Your task to perform on an android device: Open CNN.com Image 0: 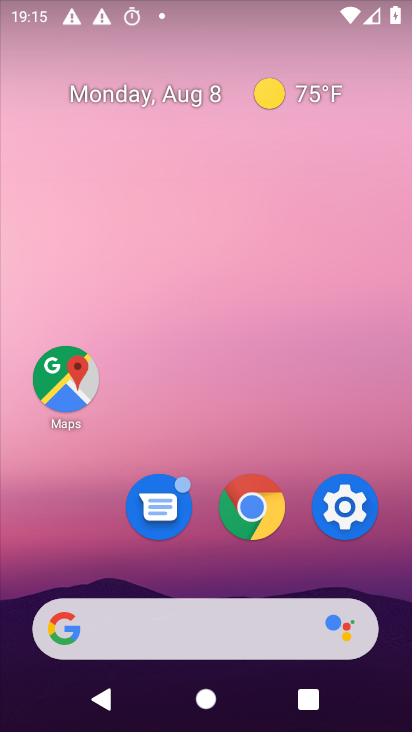
Step 0: drag from (268, 622) to (248, 212)
Your task to perform on an android device: Open CNN.com Image 1: 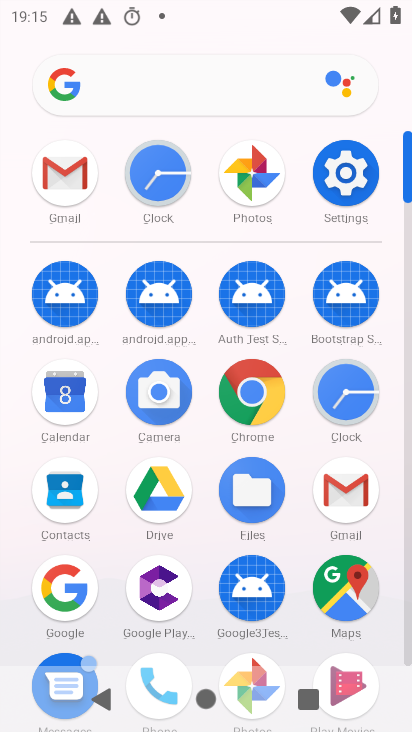
Step 1: click (251, 388)
Your task to perform on an android device: Open CNN.com Image 2: 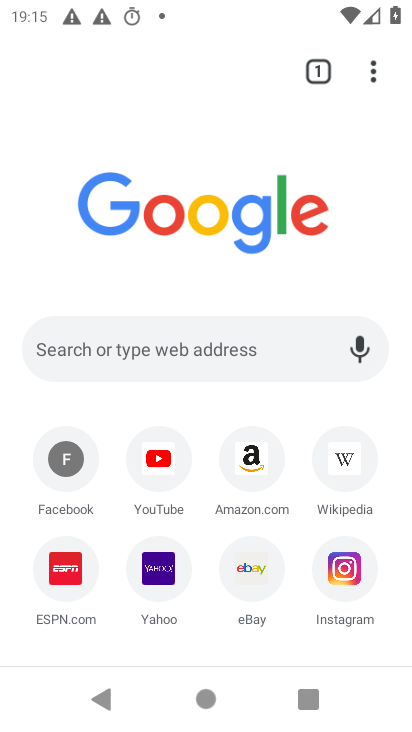
Step 2: click (165, 344)
Your task to perform on an android device: Open CNN.com Image 3: 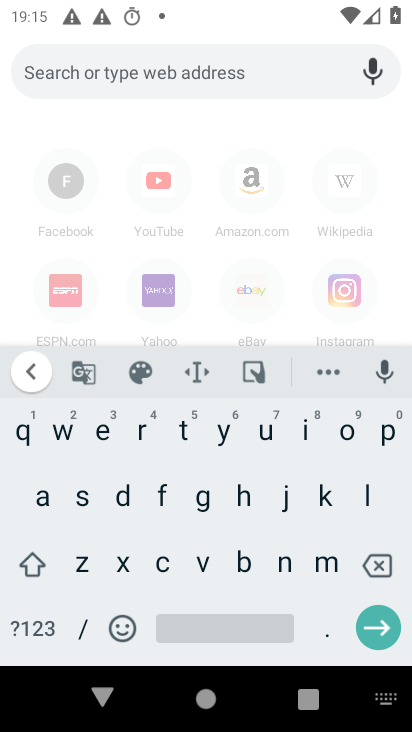
Step 3: click (157, 569)
Your task to perform on an android device: Open CNN.com Image 4: 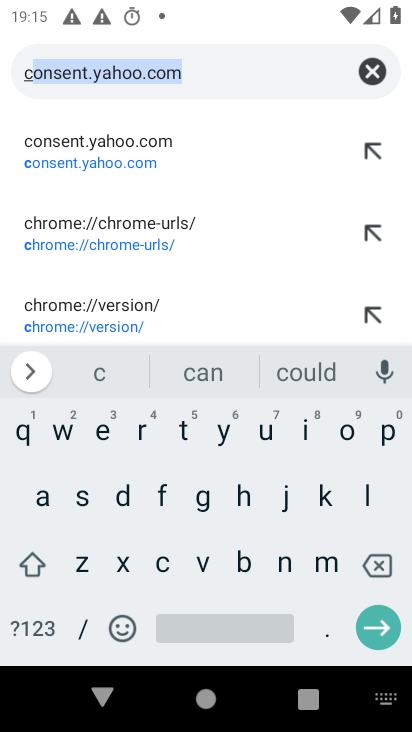
Step 4: click (280, 560)
Your task to perform on an android device: Open CNN.com Image 5: 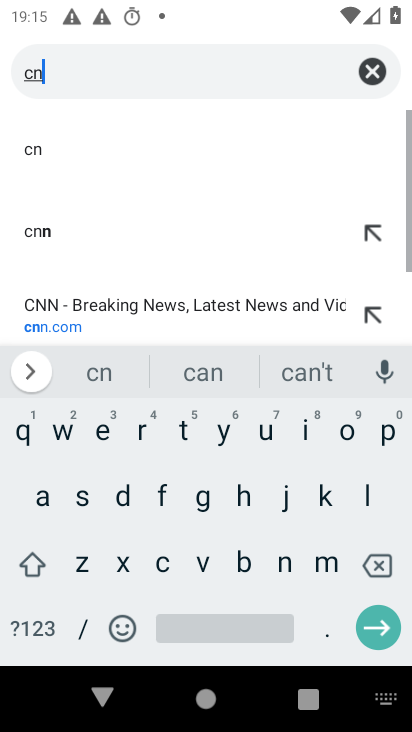
Step 5: click (280, 560)
Your task to perform on an android device: Open CNN.com Image 6: 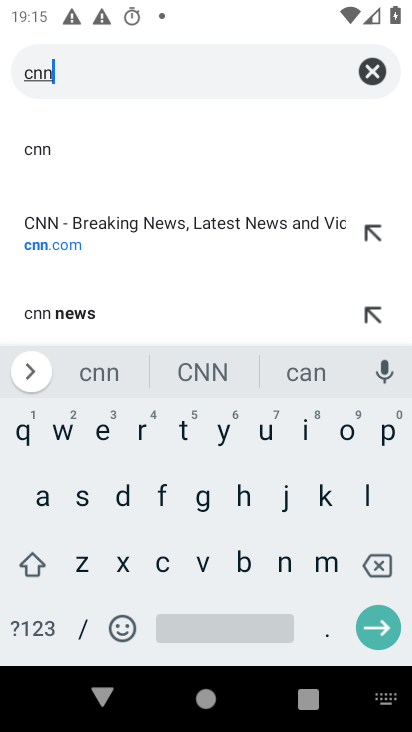
Step 6: click (372, 620)
Your task to perform on an android device: Open CNN.com Image 7: 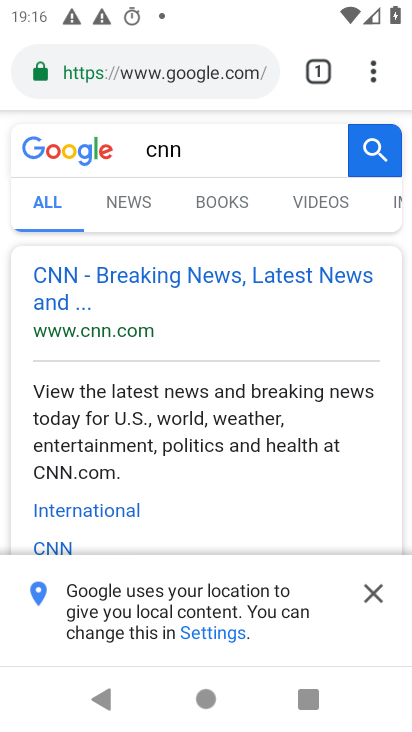
Step 7: click (124, 269)
Your task to perform on an android device: Open CNN.com Image 8: 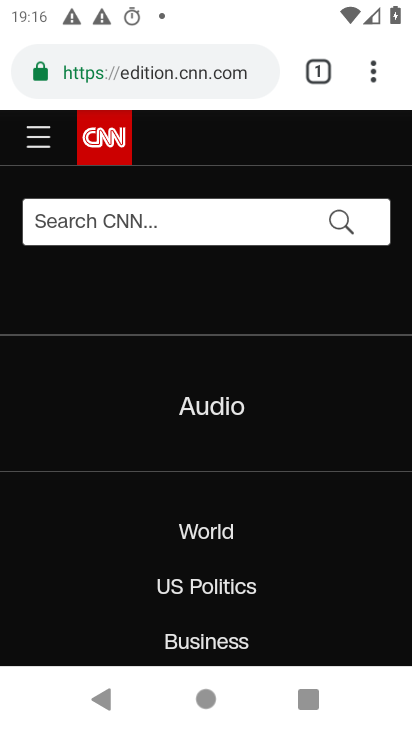
Step 8: task complete